Your task to perform on an android device: turn off notifications settings in the gmail app Image 0: 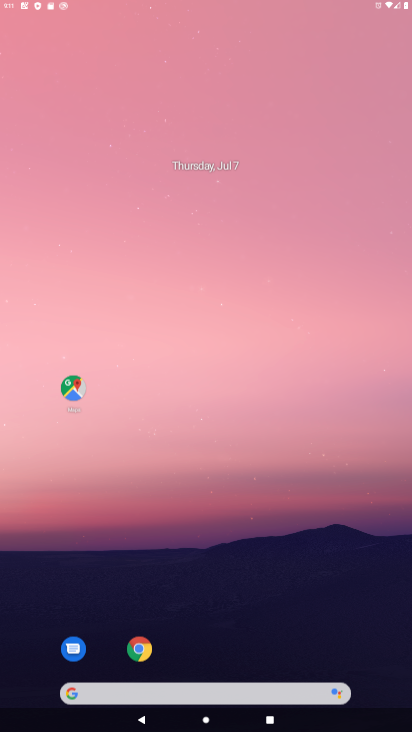
Step 0: click (309, 132)
Your task to perform on an android device: turn off notifications settings in the gmail app Image 1: 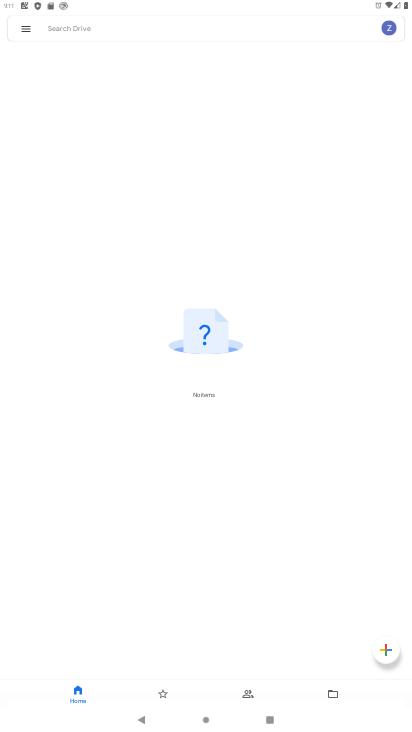
Step 1: press home button
Your task to perform on an android device: turn off notifications settings in the gmail app Image 2: 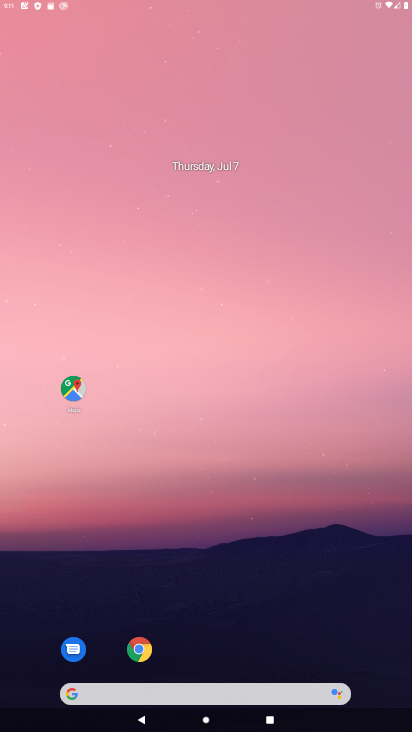
Step 2: drag from (204, 712) to (228, 117)
Your task to perform on an android device: turn off notifications settings in the gmail app Image 3: 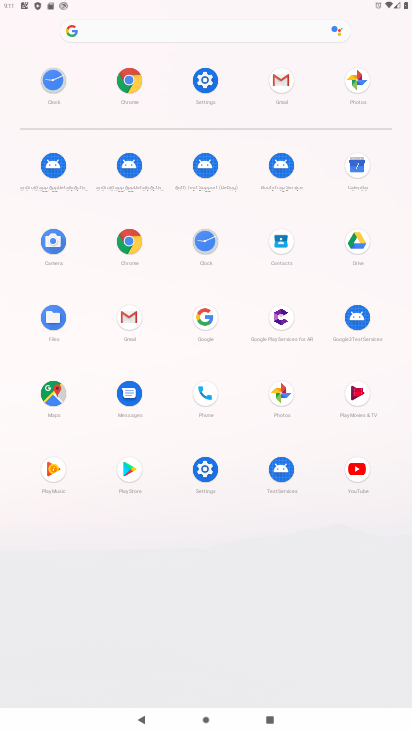
Step 3: click (132, 316)
Your task to perform on an android device: turn off notifications settings in the gmail app Image 4: 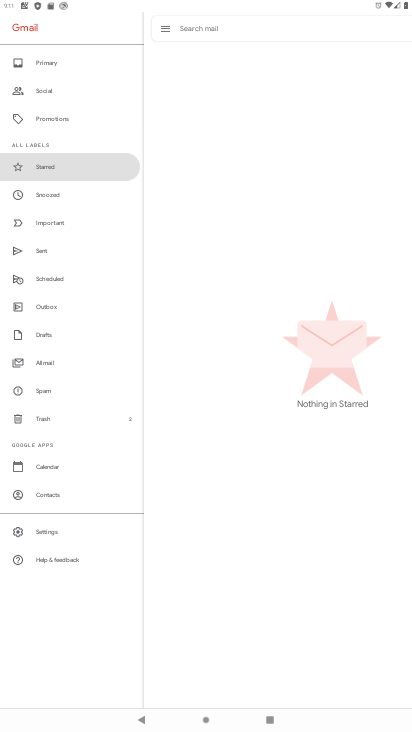
Step 4: click (52, 526)
Your task to perform on an android device: turn off notifications settings in the gmail app Image 5: 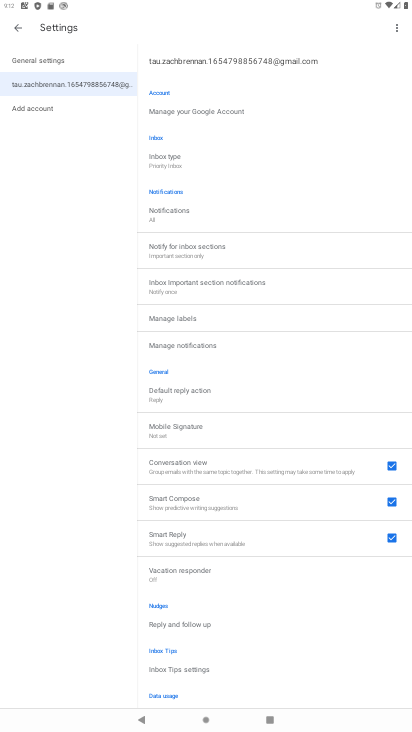
Step 5: click (186, 337)
Your task to perform on an android device: turn off notifications settings in the gmail app Image 6: 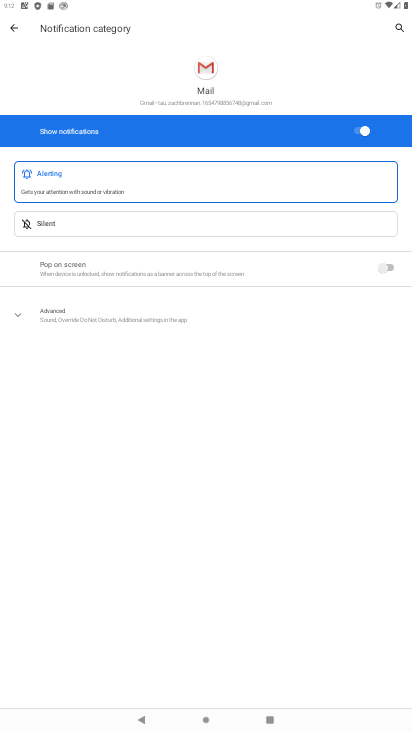
Step 6: click (359, 134)
Your task to perform on an android device: turn off notifications settings in the gmail app Image 7: 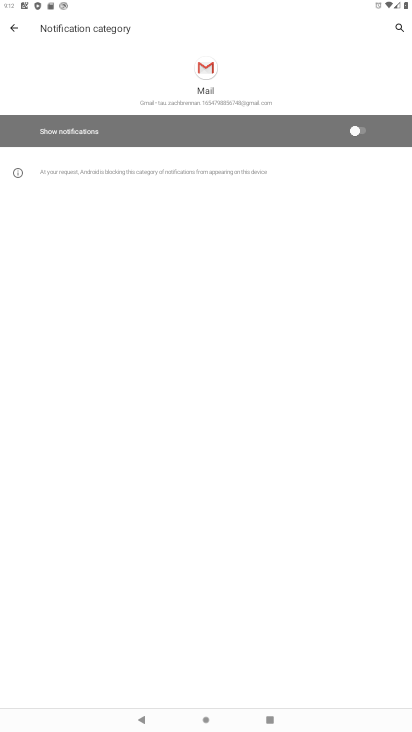
Step 7: task complete